Your task to perform on an android device: turn off data saver in the chrome app Image 0: 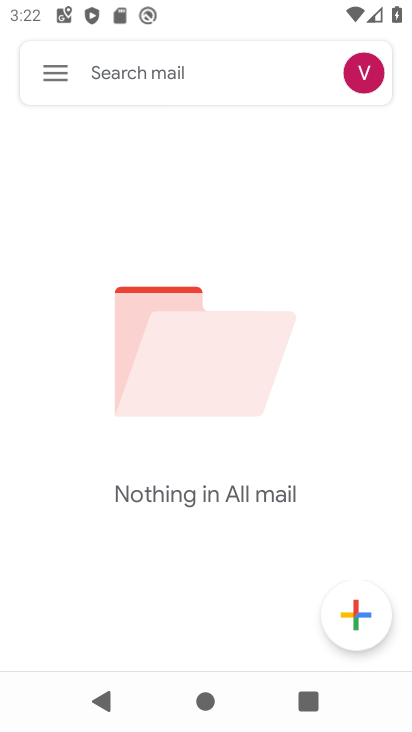
Step 0: press home button
Your task to perform on an android device: turn off data saver in the chrome app Image 1: 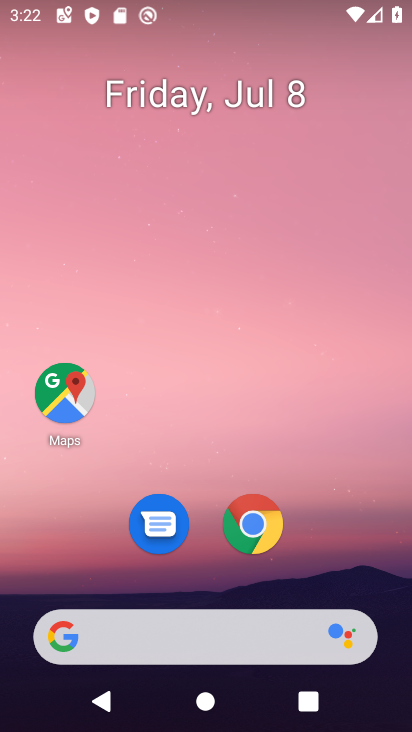
Step 1: drag from (330, 527) to (294, 42)
Your task to perform on an android device: turn off data saver in the chrome app Image 2: 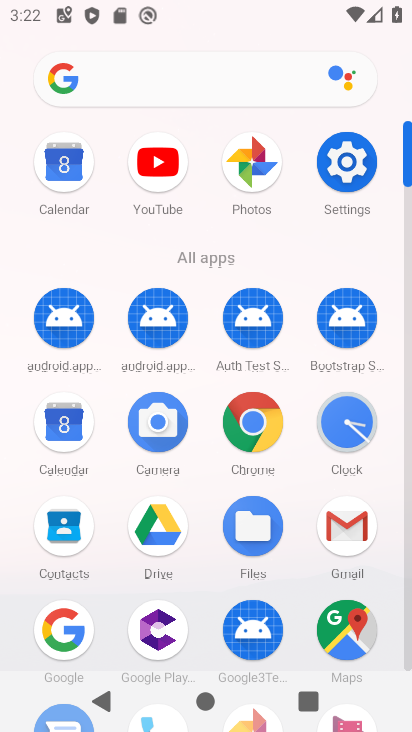
Step 2: click (254, 428)
Your task to perform on an android device: turn off data saver in the chrome app Image 3: 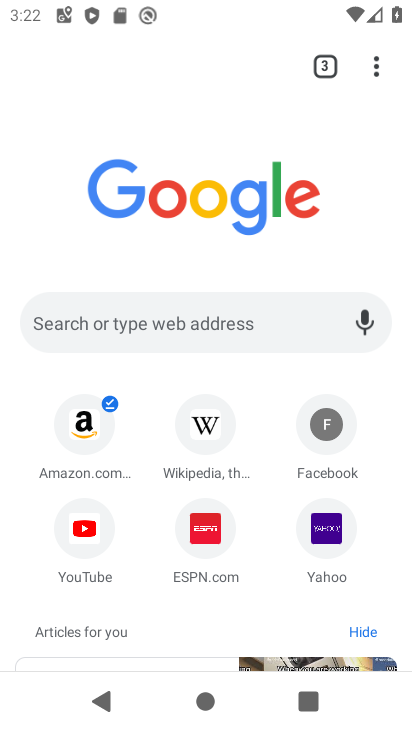
Step 3: click (377, 73)
Your task to perform on an android device: turn off data saver in the chrome app Image 4: 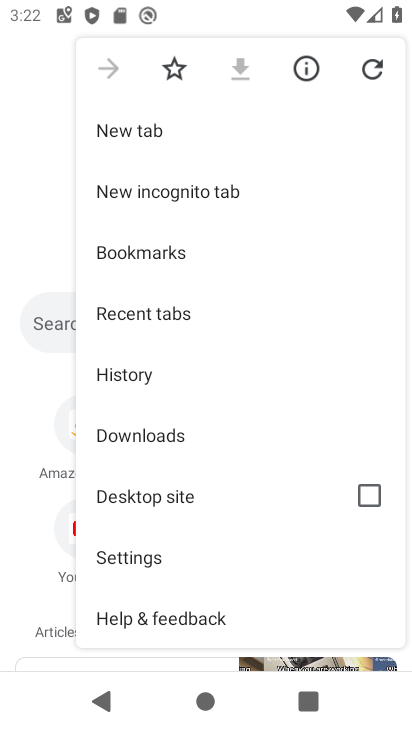
Step 4: click (150, 556)
Your task to perform on an android device: turn off data saver in the chrome app Image 5: 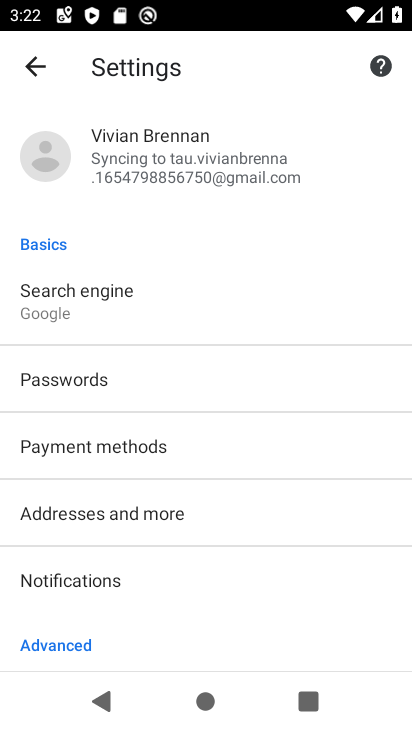
Step 5: drag from (195, 572) to (191, 254)
Your task to perform on an android device: turn off data saver in the chrome app Image 6: 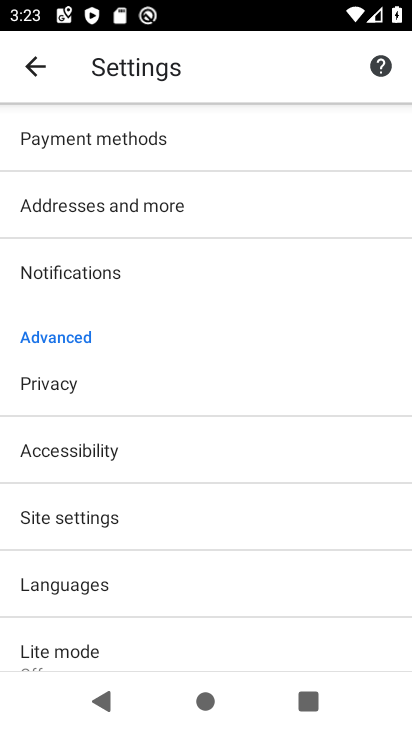
Step 6: drag from (229, 557) to (244, 292)
Your task to perform on an android device: turn off data saver in the chrome app Image 7: 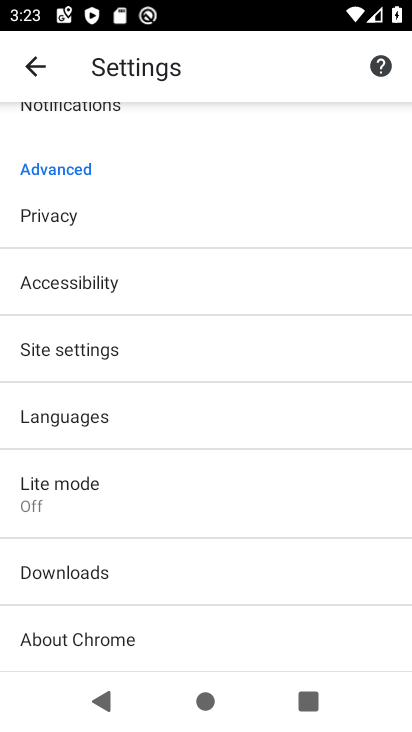
Step 7: click (133, 494)
Your task to perform on an android device: turn off data saver in the chrome app Image 8: 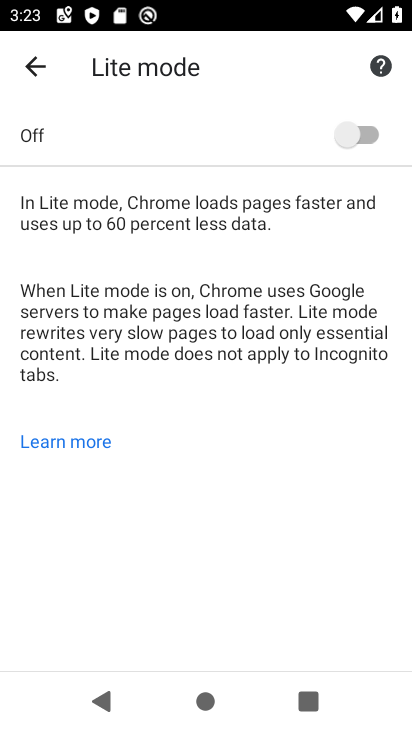
Step 8: task complete